Your task to perform on an android device: turn off airplane mode Image 0: 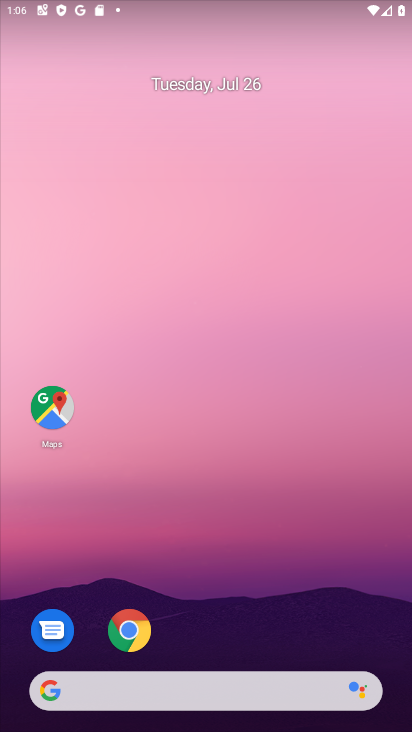
Step 0: drag from (184, 628) to (194, 152)
Your task to perform on an android device: turn off airplane mode Image 1: 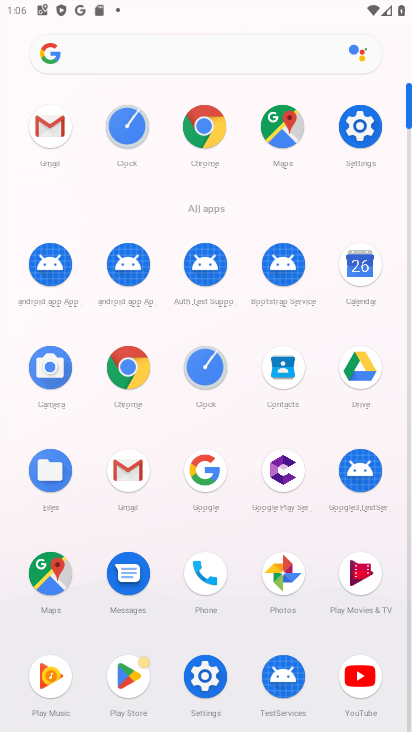
Step 1: click (200, 671)
Your task to perform on an android device: turn off airplane mode Image 2: 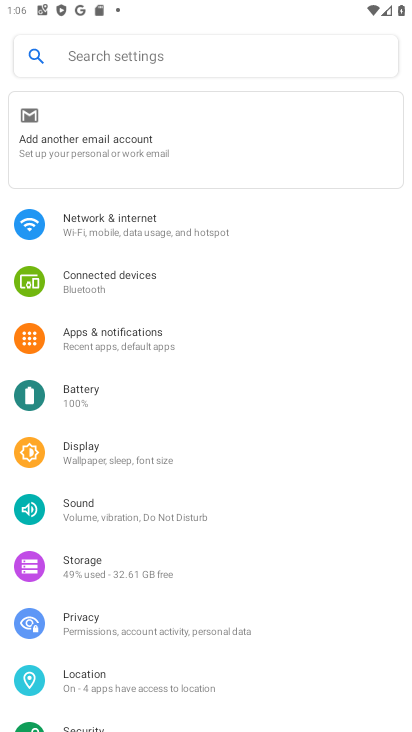
Step 2: click (115, 225)
Your task to perform on an android device: turn off airplane mode Image 3: 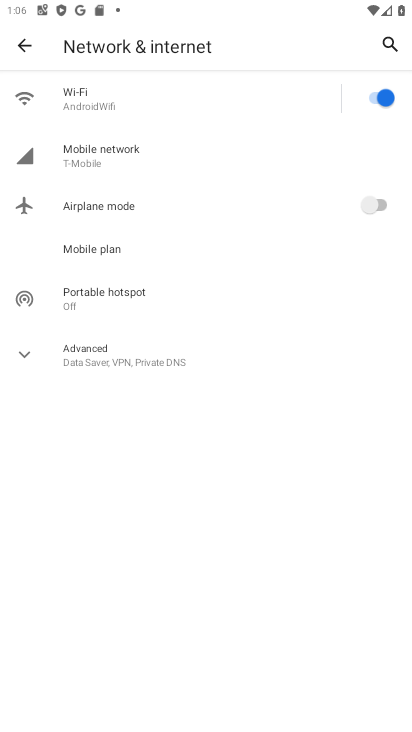
Step 3: task complete